Your task to perform on an android device: open chrome privacy settings Image 0: 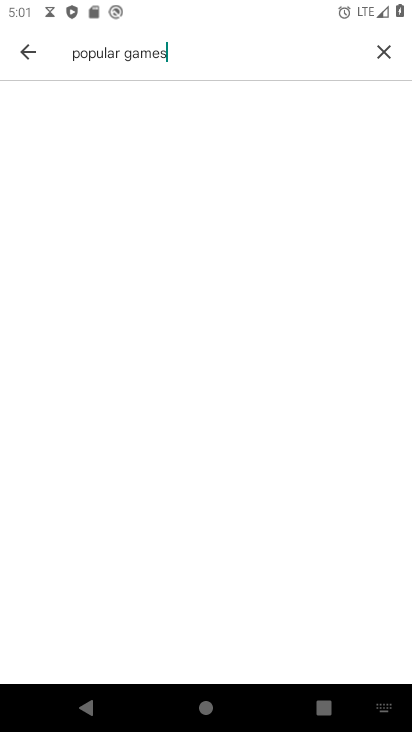
Step 0: press home button
Your task to perform on an android device: open chrome privacy settings Image 1: 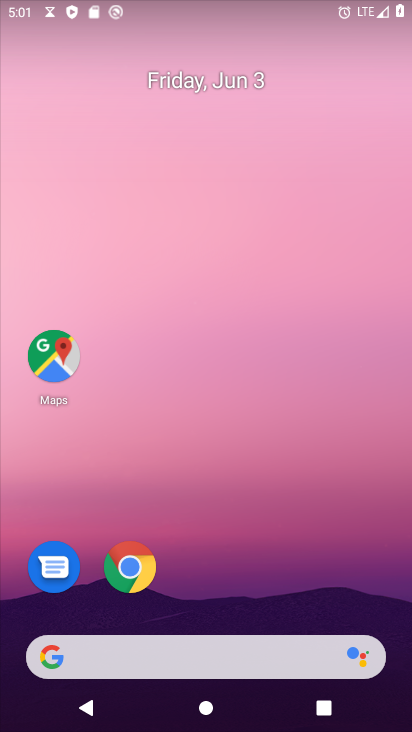
Step 1: click (131, 565)
Your task to perform on an android device: open chrome privacy settings Image 2: 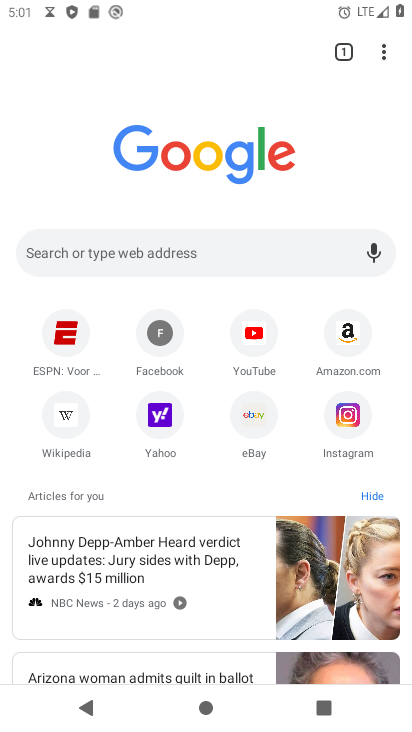
Step 2: click (385, 53)
Your task to perform on an android device: open chrome privacy settings Image 3: 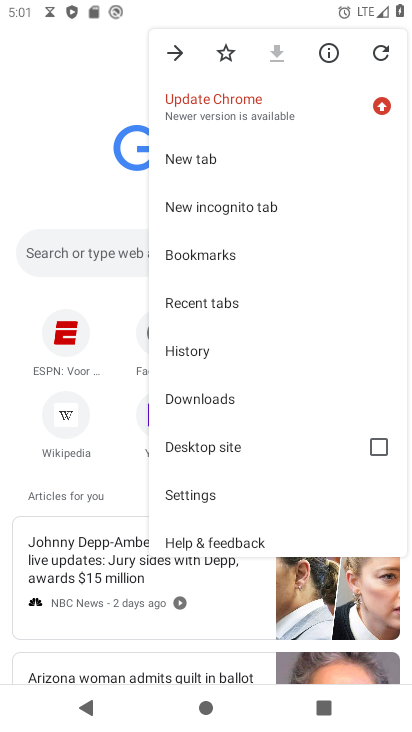
Step 3: drag from (213, 421) to (227, 339)
Your task to perform on an android device: open chrome privacy settings Image 4: 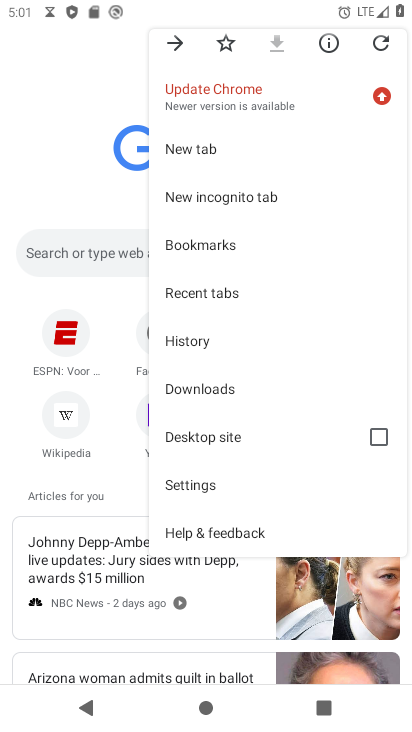
Step 4: click (202, 487)
Your task to perform on an android device: open chrome privacy settings Image 5: 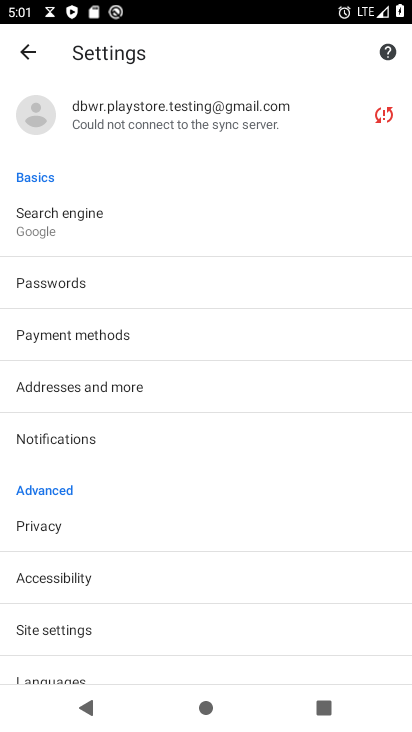
Step 5: click (50, 521)
Your task to perform on an android device: open chrome privacy settings Image 6: 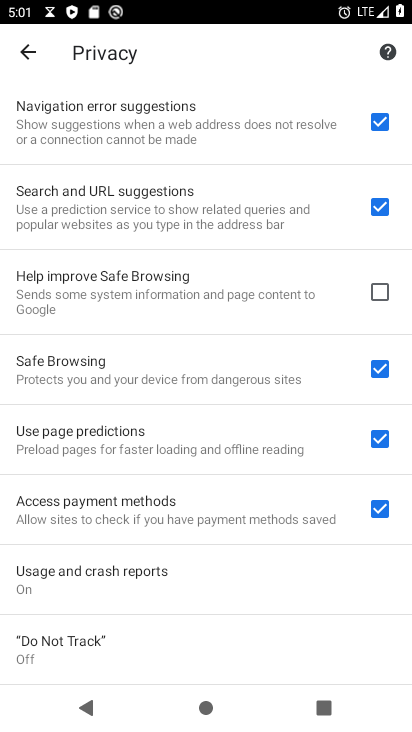
Step 6: task complete